Your task to perform on an android device: Turn off the flashlight Image 0: 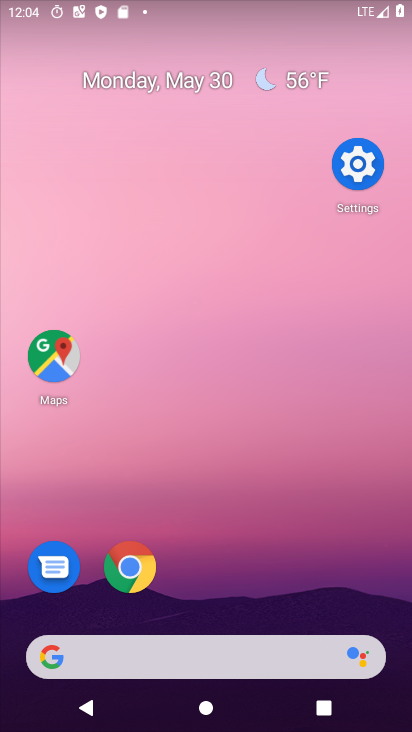
Step 0: drag from (211, 508) to (219, 101)
Your task to perform on an android device: Turn off the flashlight Image 1: 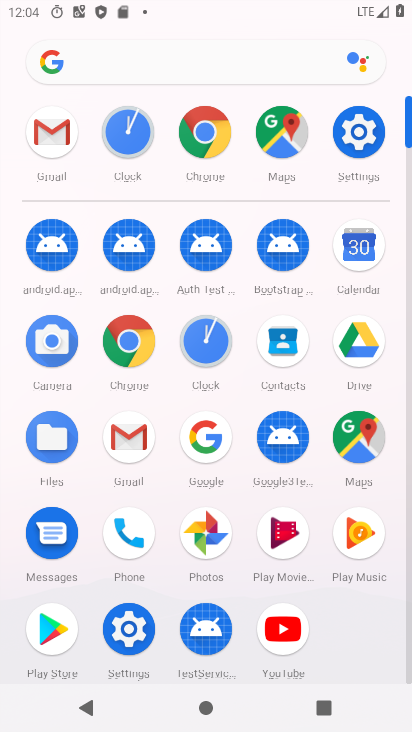
Step 1: click (369, 130)
Your task to perform on an android device: Turn off the flashlight Image 2: 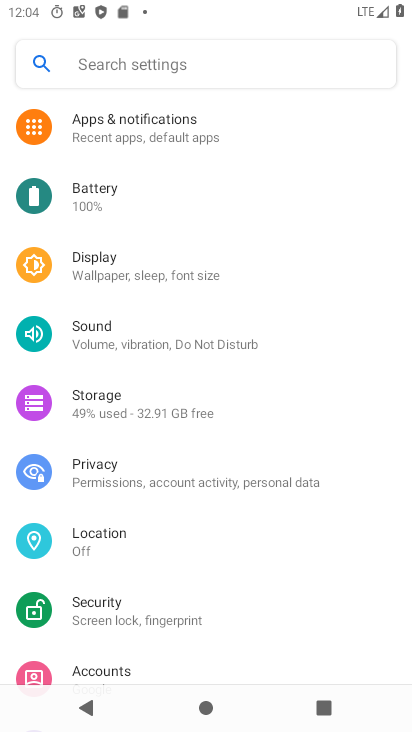
Step 2: click (200, 72)
Your task to perform on an android device: Turn off the flashlight Image 3: 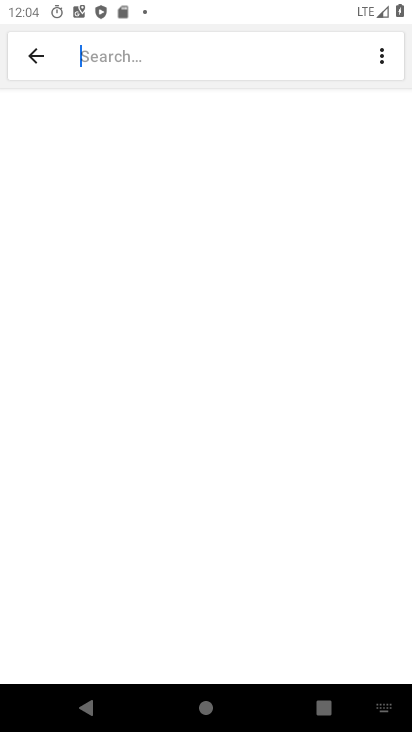
Step 3: type "flashlight"
Your task to perform on an android device: Turn off the flashlight Image 4: 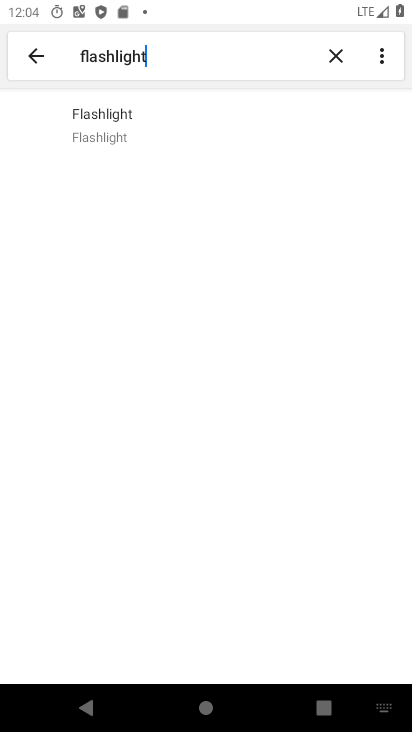
Step 4: task complete